Your task to perform on an android device: Open the contacts Image 0: 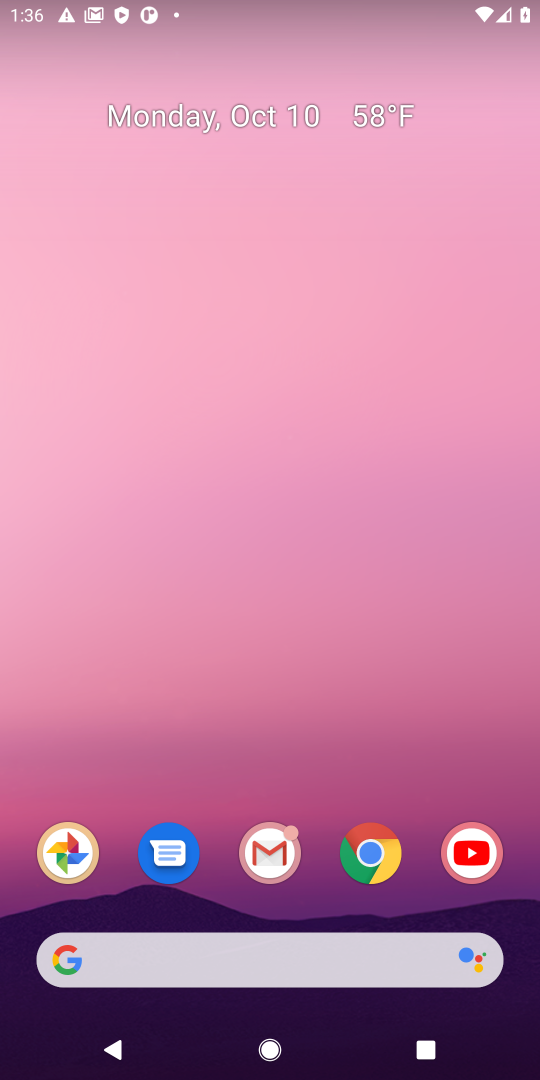
Step 0: drag from (308, 769) to (272, 278)
Your task to perform on an android device: Open the contacts Image 1: 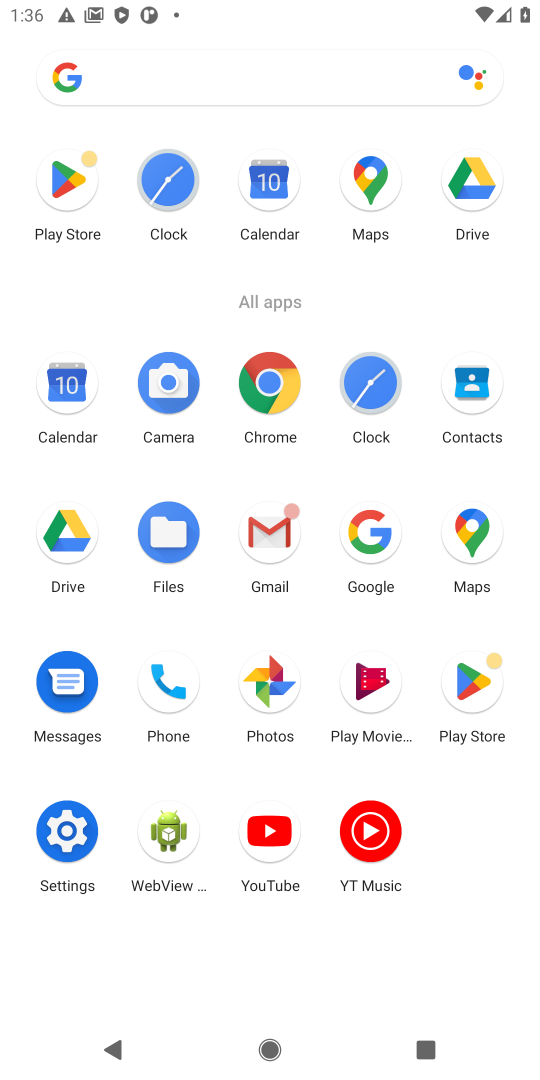
Step 1: click (462, 393)
Your task to perform on an android device: Open the contacts Image 2: 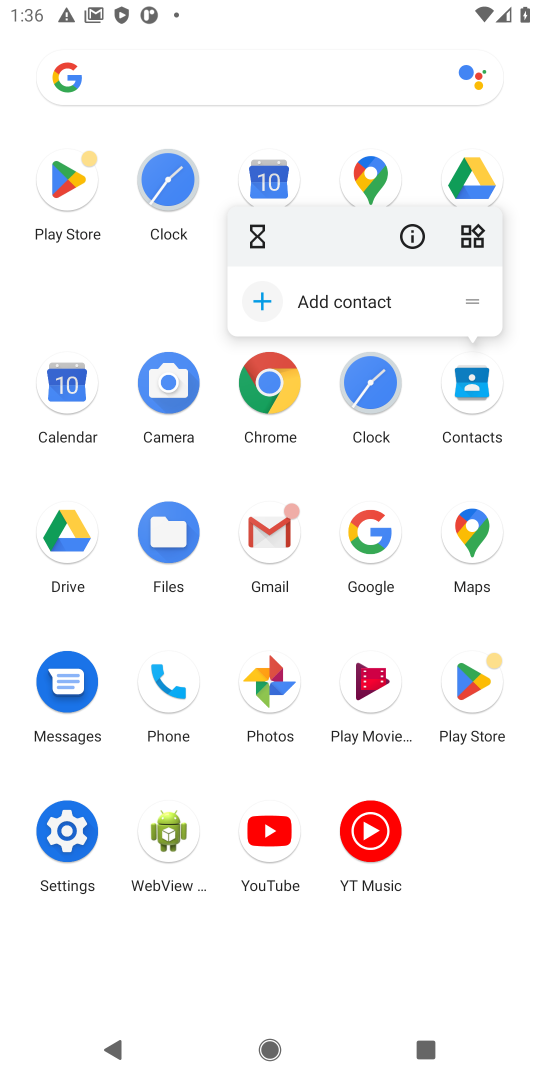
Step 2: click (483, 375)
Your task to perform on an android device: Open the contacts Image 3: 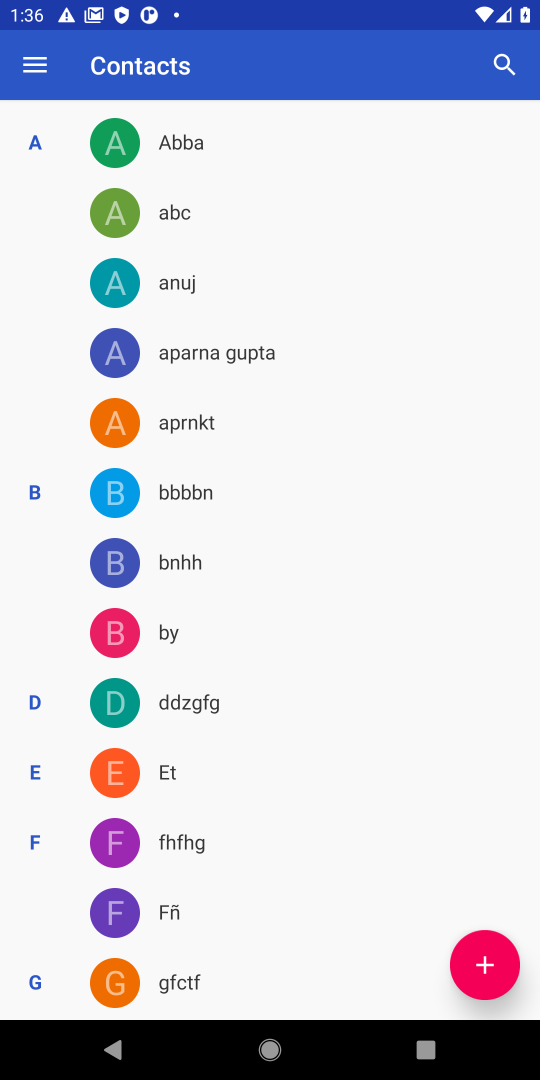
Step 3: task complete